Your task to perform on an android device: toggle sleep mode Image 0: 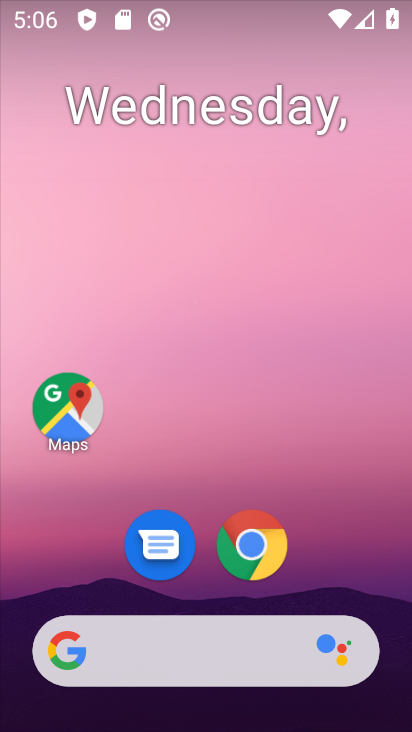
Step 0: drag from (212, 479) to (279, 41)
Your task to perform on an android device: toggle sleep mode Image 1: 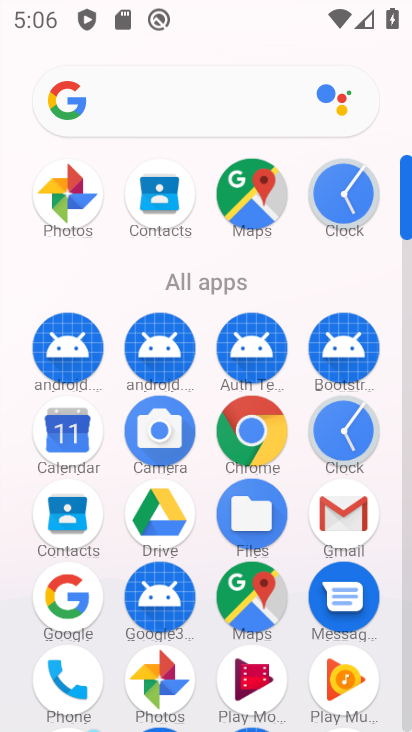
Step 1: drag from (173, 604) to (315, 46)
Your task to perform on an android device: toggle sleep mode Image 2: 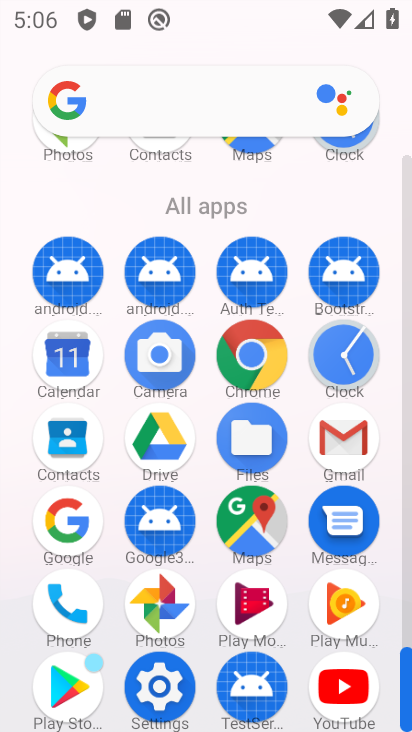
Step 2: click (154, 674)
Your task to perform on an android device: toggle sleep mode Image 3: 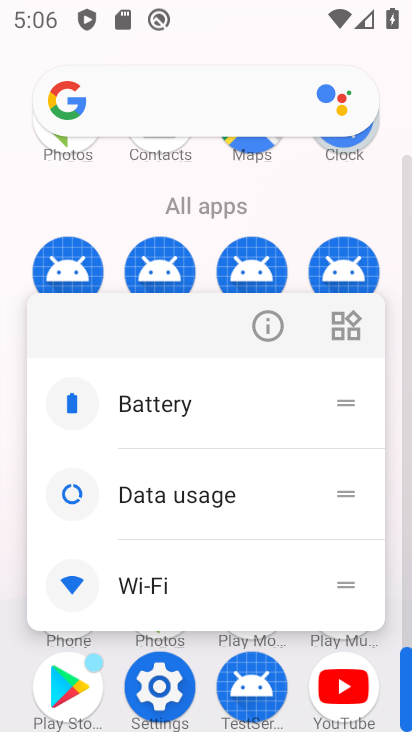
Step 3: click (163, 693)
Your task to perform on an android device: toggle sleep mode Image 4: 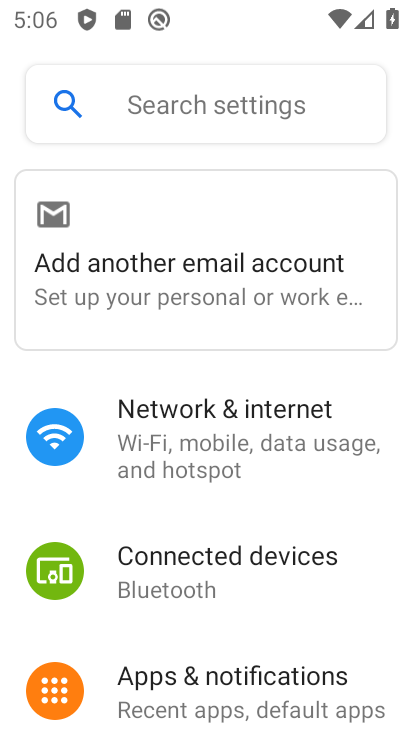
Step 4: click (156, 98)
Your task to perform on an android device: toggle sleep mode Image 5: 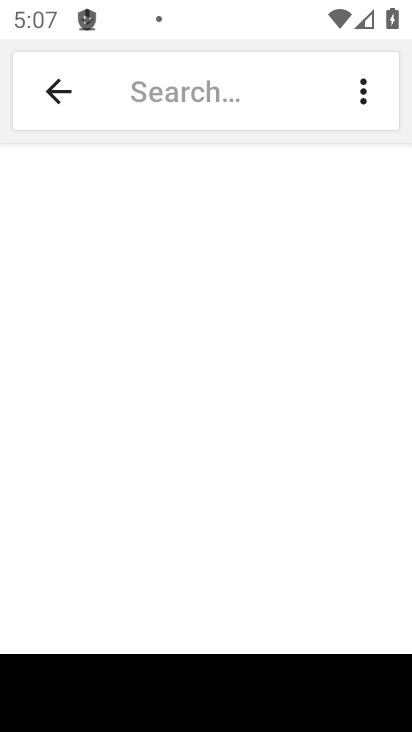
Step 5: type "sleep mode"
Your task to perform on an android device: toggle sleep mode Image 6: 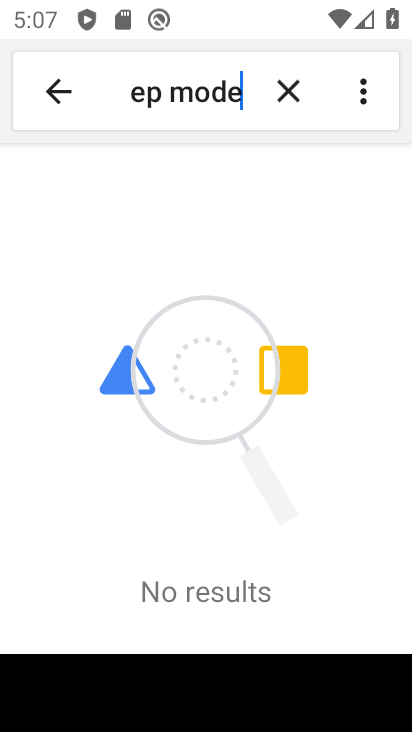
Step 6: task complete